Your task to perform on an android device: turn on airplane mode Image 0: 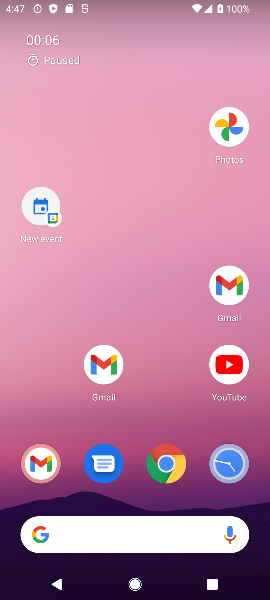
Step 0: drag from (168, 569) to (127, 159)
Your task to perform on an android device: turn on airplane mode Image 1: 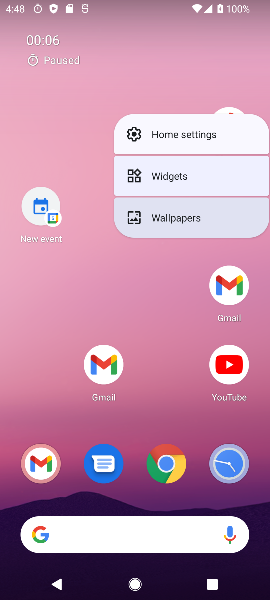
Step 1: drag from (182, 251) to (139, 100)
Your task to perform on an android device: turn on airplane mode Image 2: 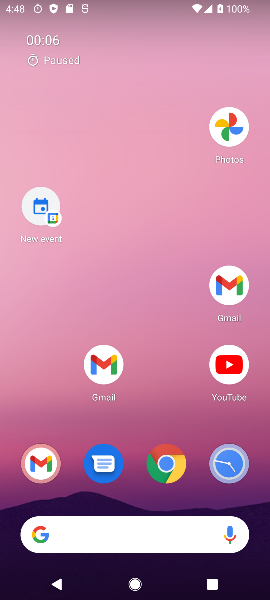
Step 2: drag from (95, 545) to (126, 210)
Your task to perform on an android device: turn on airplane mode Image 3: 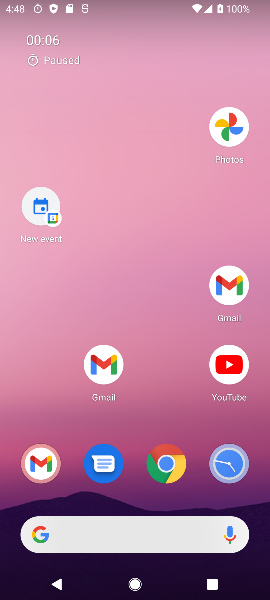
Step 3: drag from (145, 332) to (147, 124)
Your task to perform on an android device: turn on airplane mode Image 4: 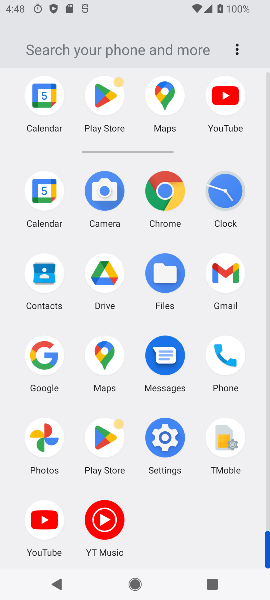
Step 4: click (161, 451)
Your task to perform on an android device: turn on airplane mode Image 5: 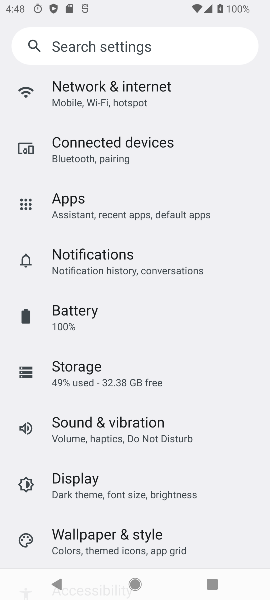
Step 5: click (92, 102)
Your task to perform on an android device: turn on airplane mode Image 6: 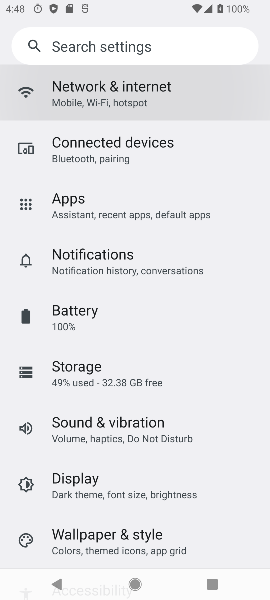
Step 6: click (98, 104)
Your task to perform on an android device: turn on airplane mode Image 7: 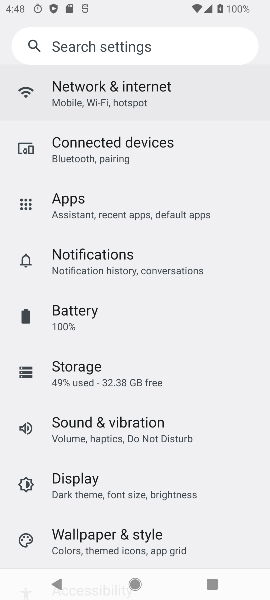
Step 7: click (101, 107)
Your task to perform on an android device: turn on airplane mode Image 8: 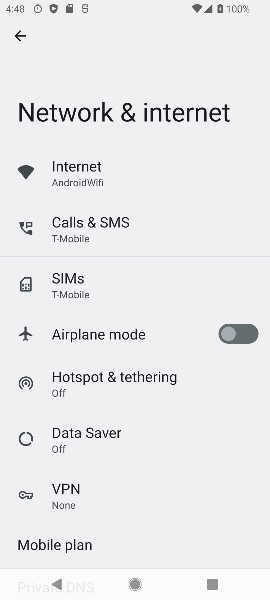
Step 8: click (232, 336)
Your task to perform on an android device: turn on airplane mode Image 9: 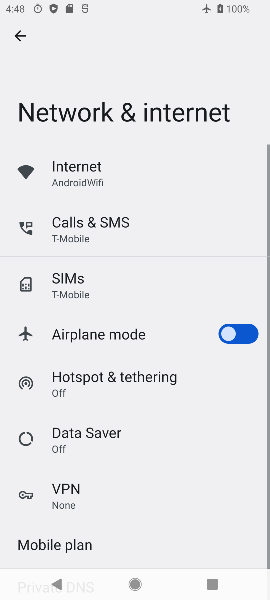
Step 9: task complete